Your task to perform on an android device: Do I have any events today? Image 0: 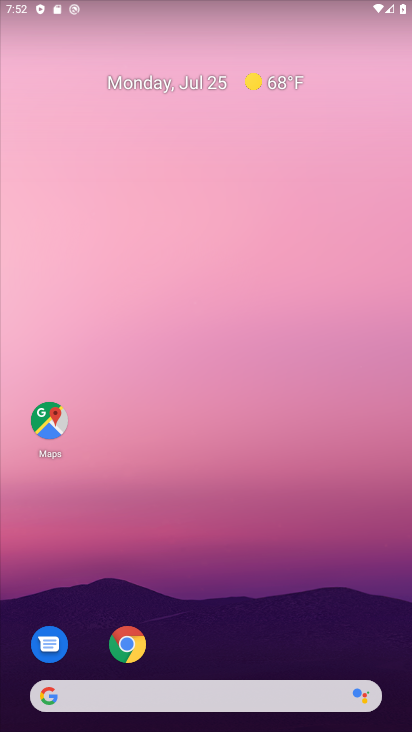
Step 0: drag from (212, 509) to (186, 67)
Your task to perform on an android device: Do I have any events today? Image 1: 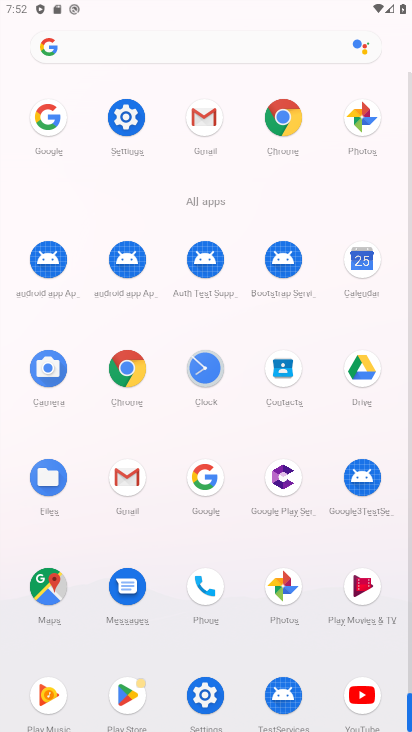
Step 1: click (358, 257)
Your task to perform on an android device: Do I have any events today? Image 2: 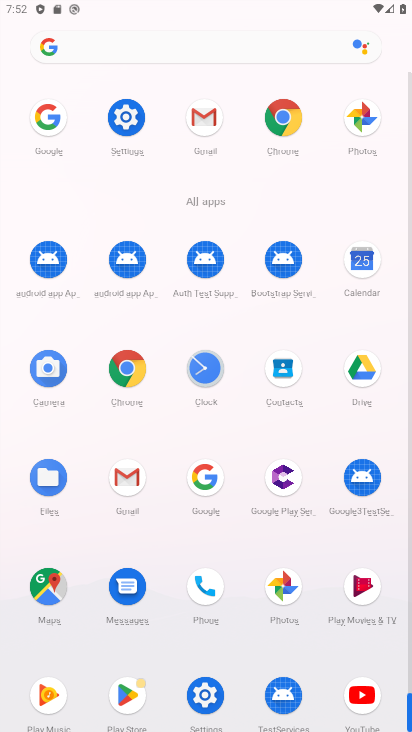
Step 2: click (357, 253)
Your task to perform on an android device: Do I have any events today? Image 3: 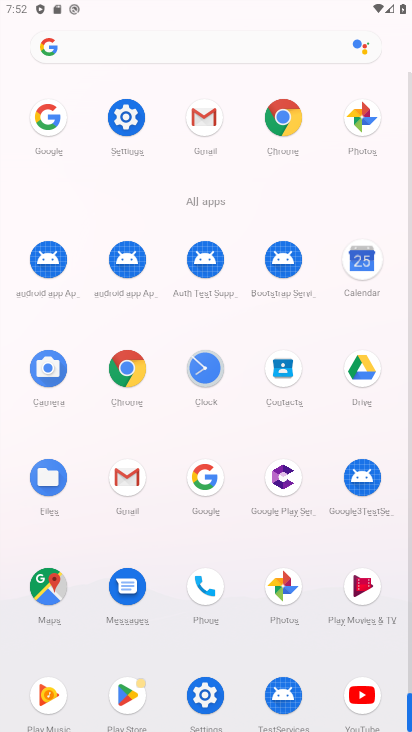
Step 3: click (357, 253)
Your task to perform on an android device: Do I have any events today? Image 4: 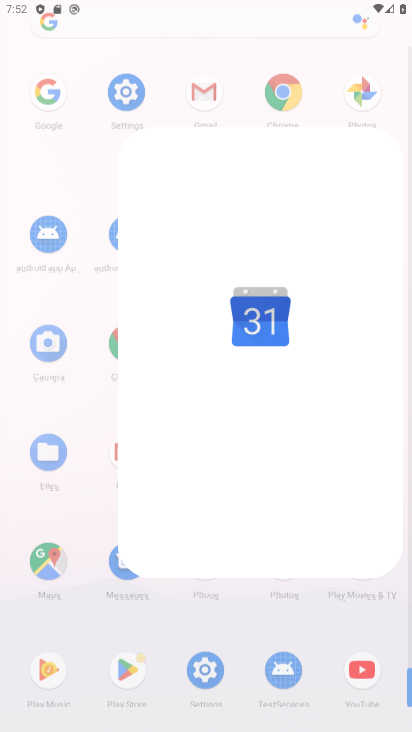
Step 4: click (357, 256)
Your task to perform on an android device: Do I have any events today? Image 5: 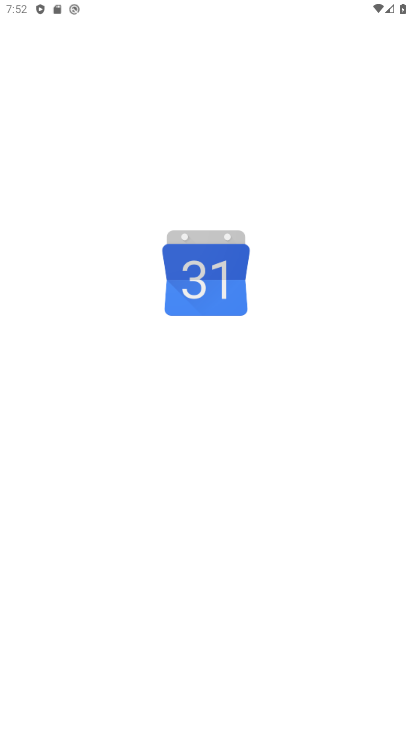
Step 5: click (358, 260)
Your task to perform on an android device: Do I have any events today? Image 6: 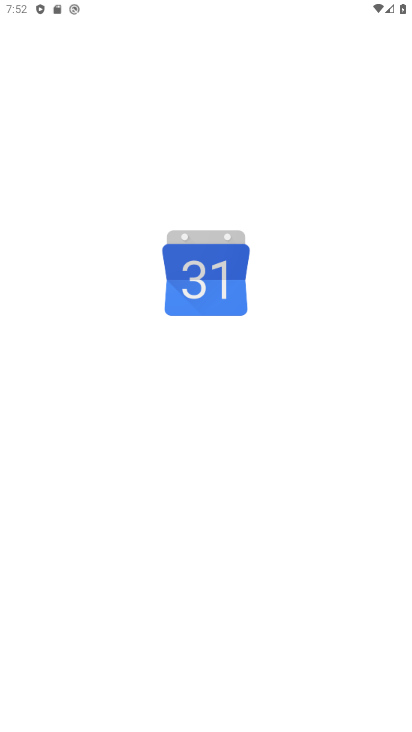
Step 6: click (361, 260)
Your task to perform on an android device: Do I have any events today? Image 7: 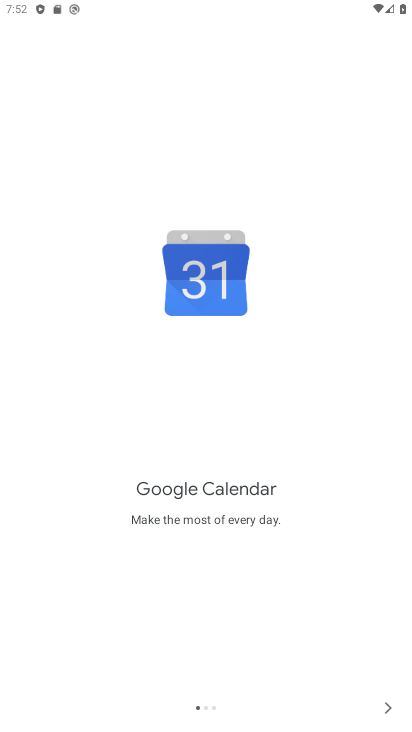
Step 7: click (374, 709)
Your task to perform on an android device: Do I have any events today? Image 8: 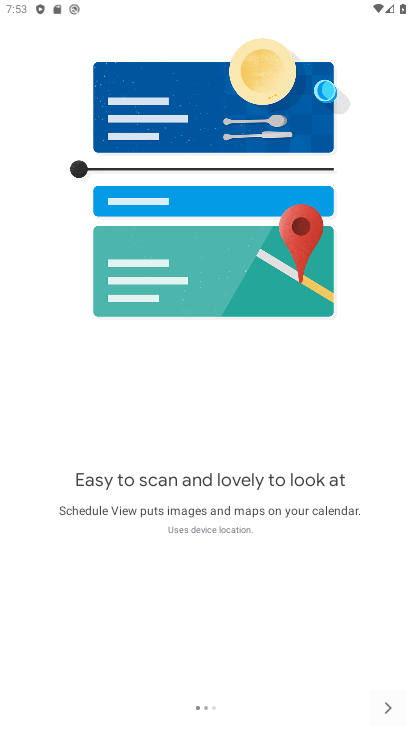
Step 8: click (387, 708)
Your task to perform on an android device: Do I have any events today? Image 9: 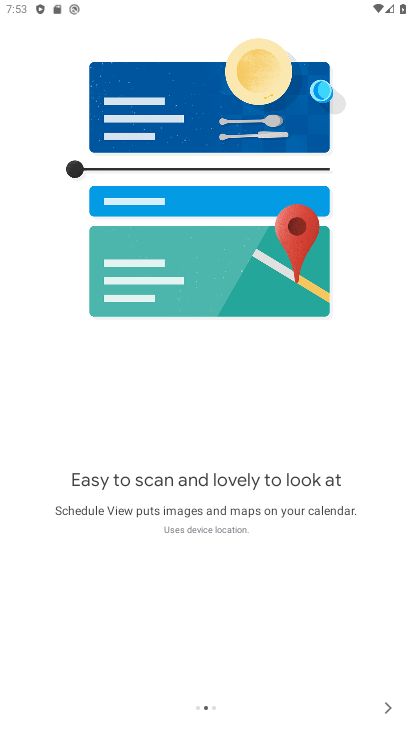
Step 9: click (389, 707)
Your task to perform on an android device: Do I have any events today? Image 10: 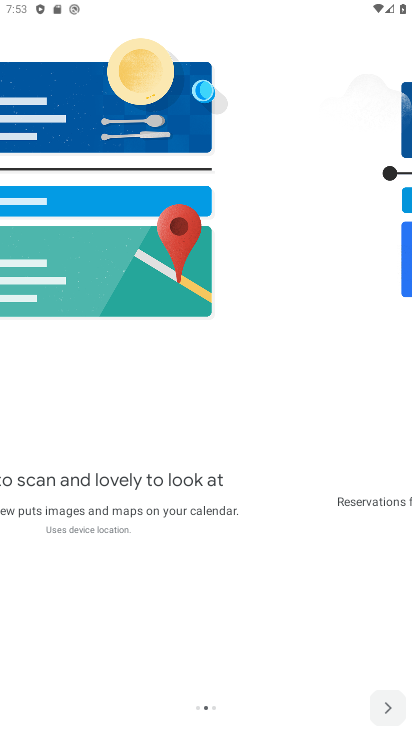
Step 10: click (389, 707)
Your task to perform on an android device: Do I have any events today? Image 11: 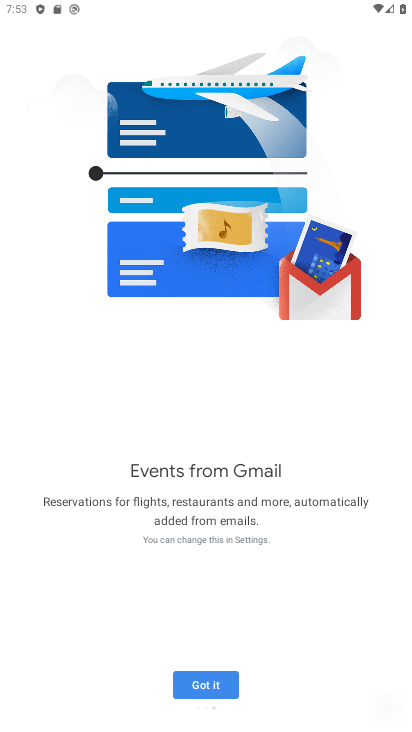
Step 11: click (389, 707)
Your task to perform on an android device: Do I have any events today? Image 12: 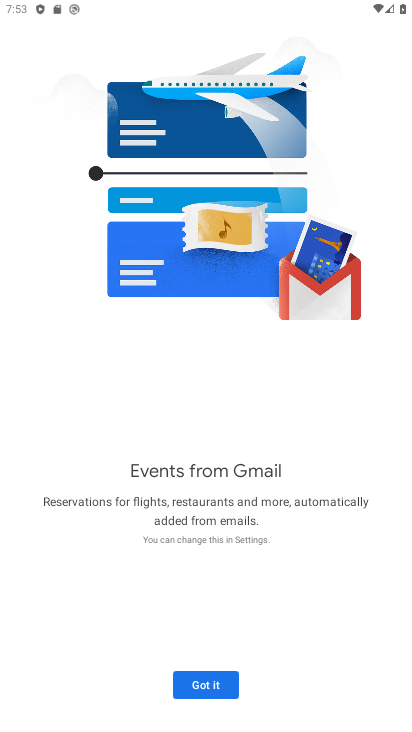
Step 12: click (389, 709)
Your task to perform on an android device: Do I have any events today? Image 13: 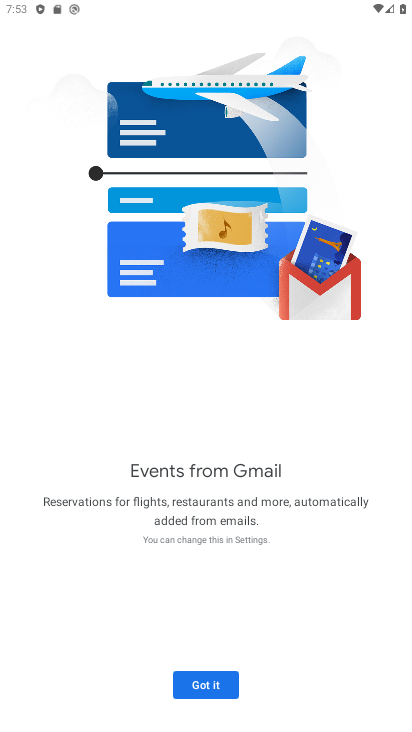
Step 13: click (216, 689)
Your task to perform on an android device: Do I have any events today? Image 14: 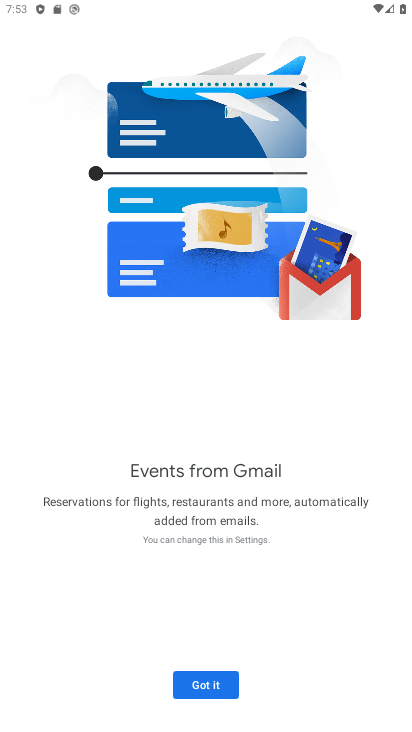
Step 14: click (214, 684)
Your task to perform on an android device: Do I have any events today? Image 15: 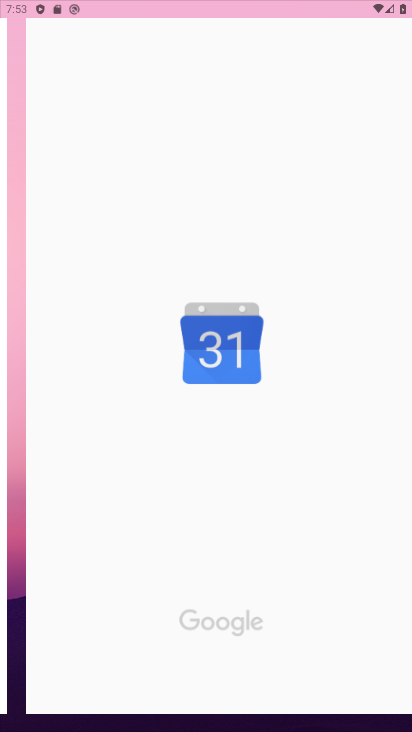
Step 15: click (214, 681)
Your task to perform on an android device: Do I have any events today? Image 16: 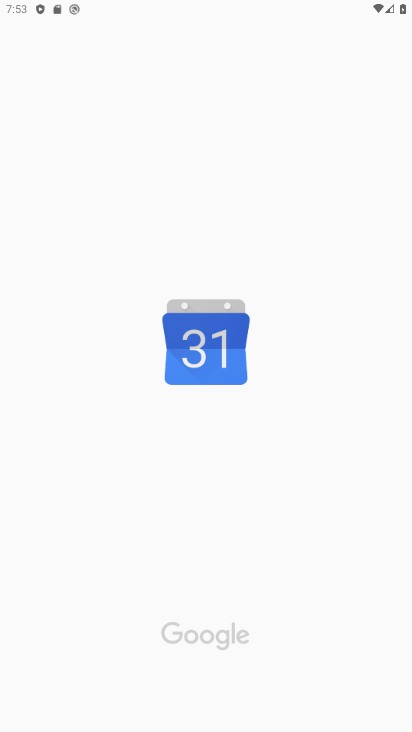
Step 16: click (216, 658)
Your task to perform on an android device: Do I have any events today? Image 17: 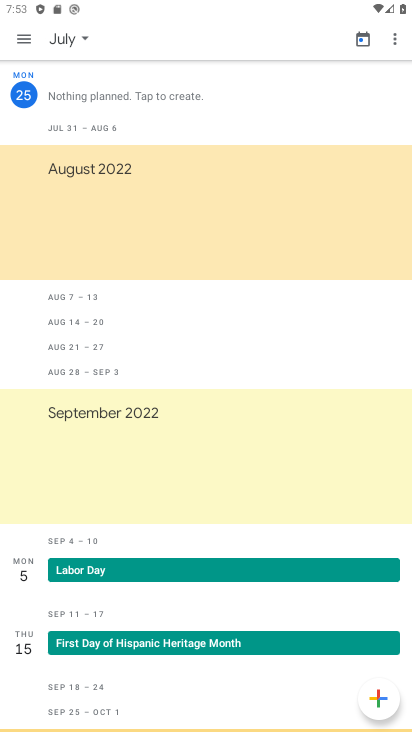
Step 17: click (81, 39)
Your task to perform on an android device: Do I have any events today? Image 18: 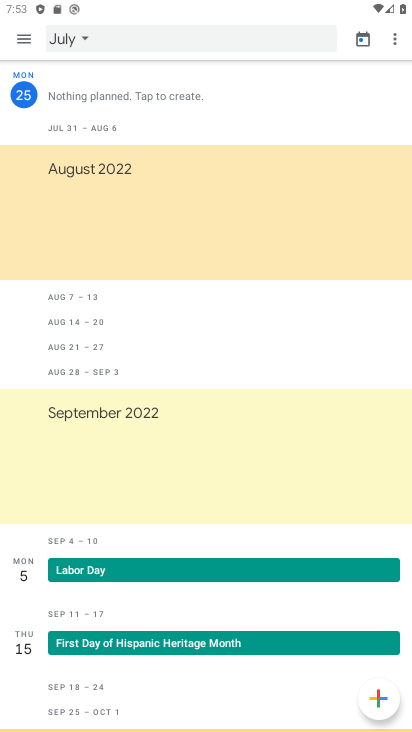
Step 18: click (81, 39)
Your task to perform on an android device: Do I have any events today? Image 19: 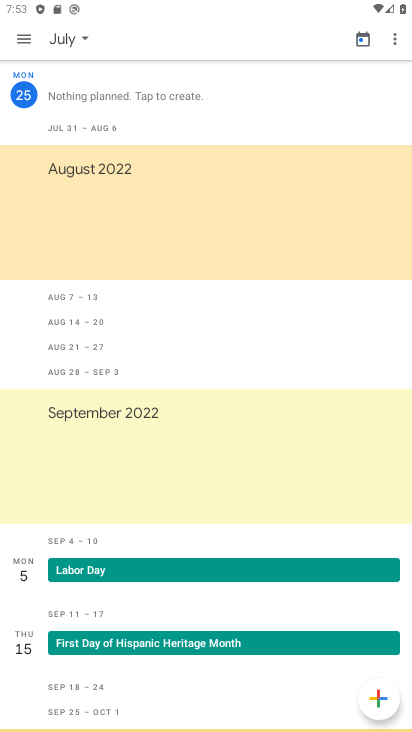
Step 19: click (82, 43)
Your task to perform on an android device: Do I have any events today? Image 20: 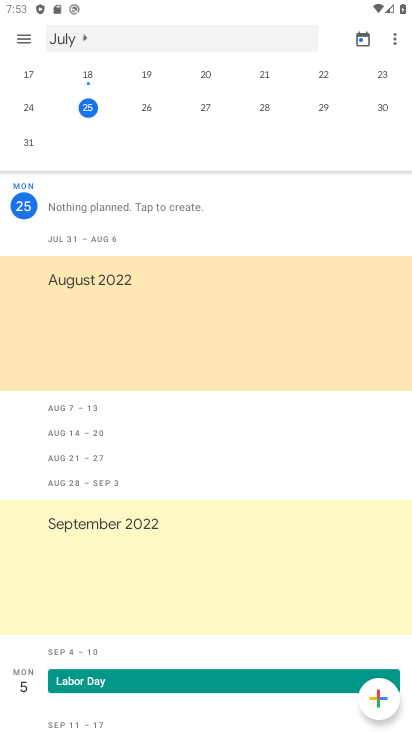
Step 20: click (82, 43)
Your task to perform on an android device: Do I have any events today? Image 21: 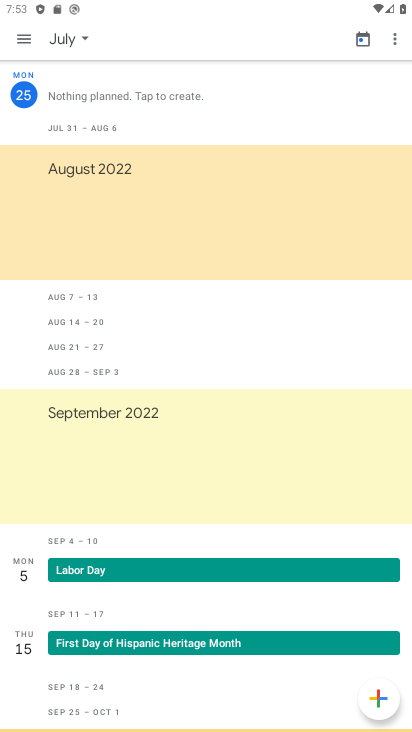
Step 21: click (78, 33)
Your task to perform on an android device: Do I have any events today? Image 22: 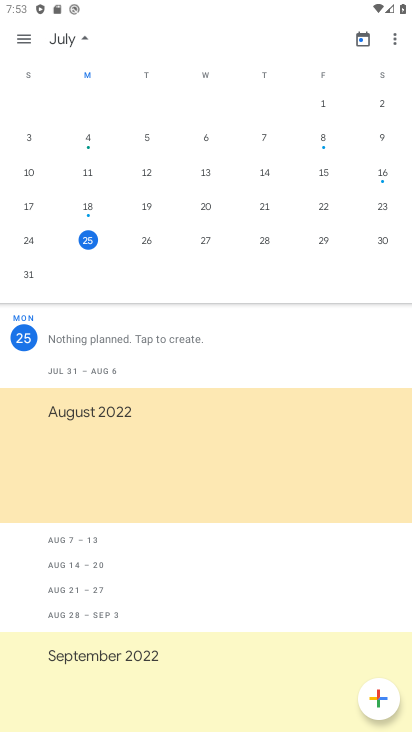
Step 22: click (138, 239)
Your task to perform on an android device: Do I have any events today? Image 23: 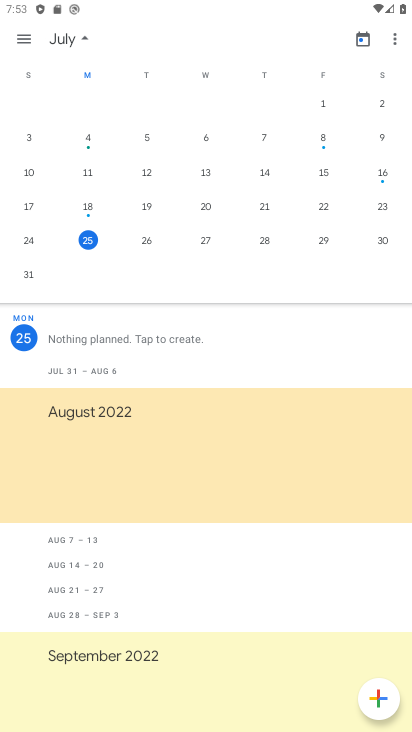
Step 23: click (149, 239)
Your task to perform on an android device: Do I have any events today? Image 24: 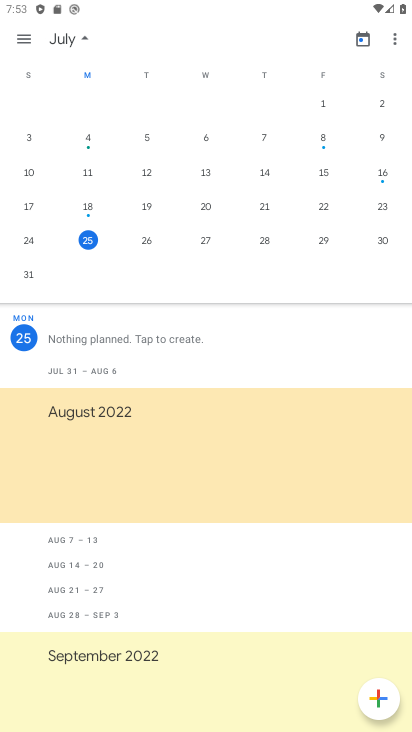
Step 24: click (150, 238)
Your task to perform on an android device: Do I have any events today? Image 25: 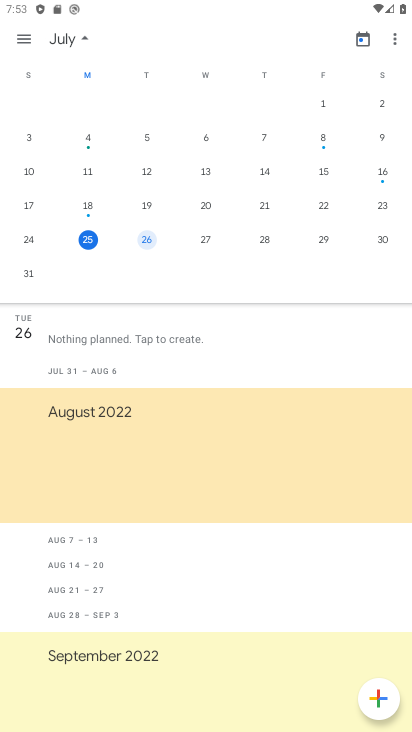
Step 25: click (150, 234)
Your task to perform on an android device: Do I have any events today? Image 26: 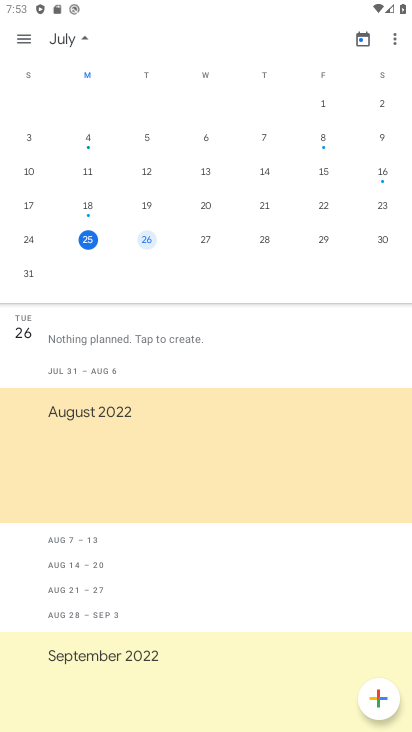
Step 26: click (150, 234)
Your task to perform on an android device: Do I have any events today? Image 27: 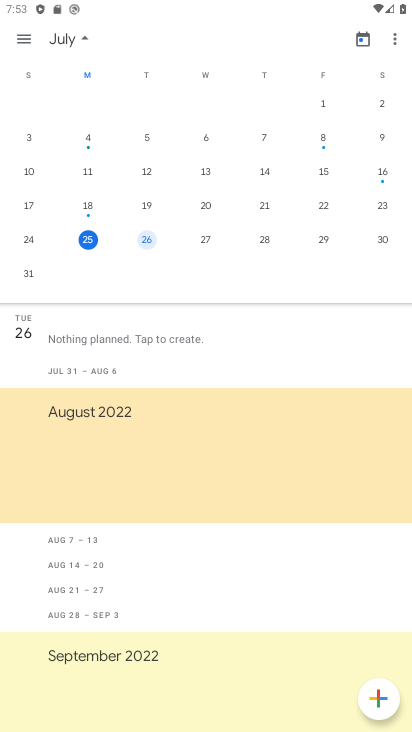
Step 27: task complete